Your task to perform on an android device: snooze an email in the gmail app Image 0: 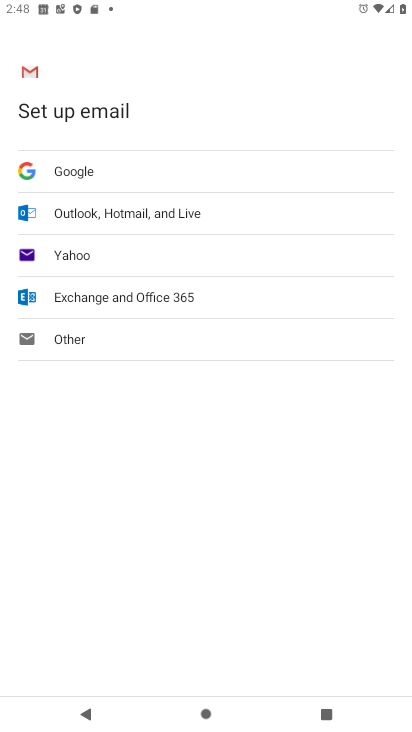
Step 0: press home button
Your task to perform on an android device: snooze an email in the gmail app Image 1: 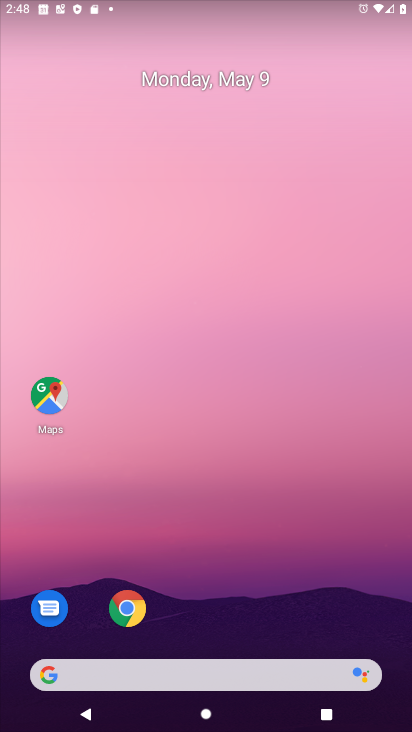
Step 1: drag from (228, 633) to (207, 119)
Your task to perform on an android device: snooze an email in the gmail app Image 2: 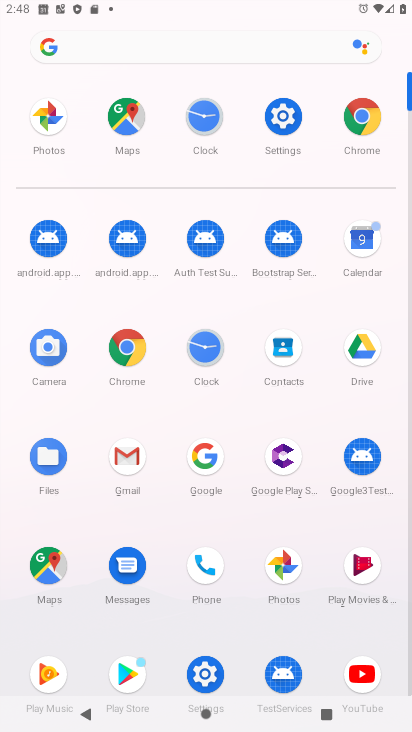
Step 2: click (133, 475)
Your task to perform on an android device: snooze an email in the gmail app Image 3: 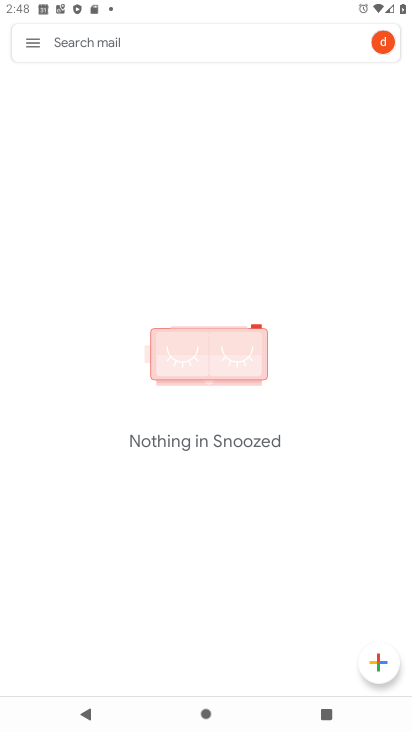
Step 3: click (37, 55)
Your task to perform on an android device: snooze an email in the gmail app Image 4: 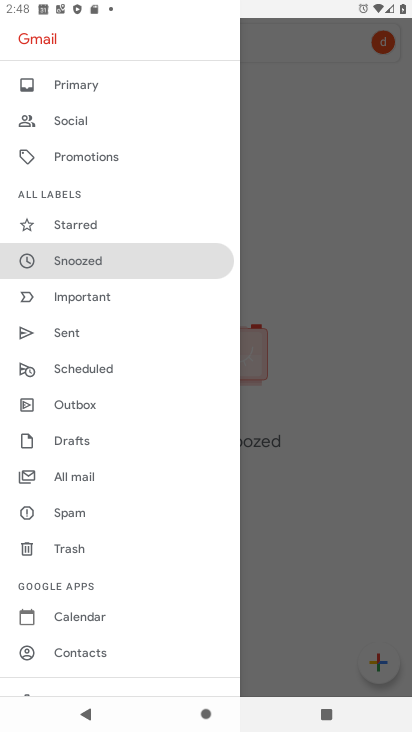
Step 4: click (105, 463)
Your task to perform on an android device: snooze an email in the gmail app Image 5: 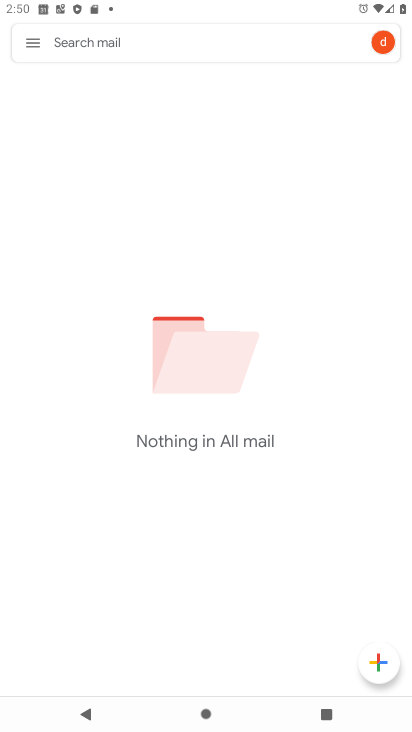
Step 5: task complete